Your task to perform on an android device: change your default location settings in chrome Image 0: 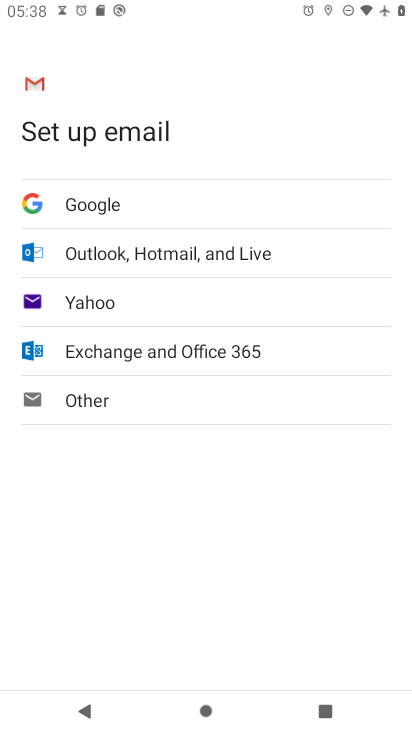
Step 0: press back button
Your task to perform on an android device: change your default location settings in chrome Image 1: 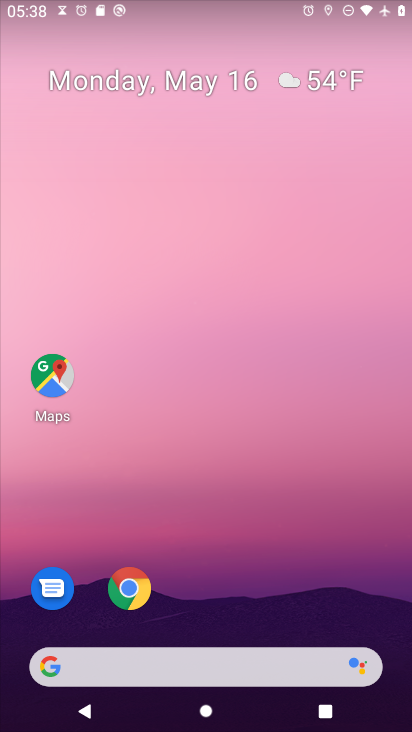
Step 1: drag from (248, 569) to (253, 15)
Your task to perform on an android device: change your default location settings in chrome Image 2: 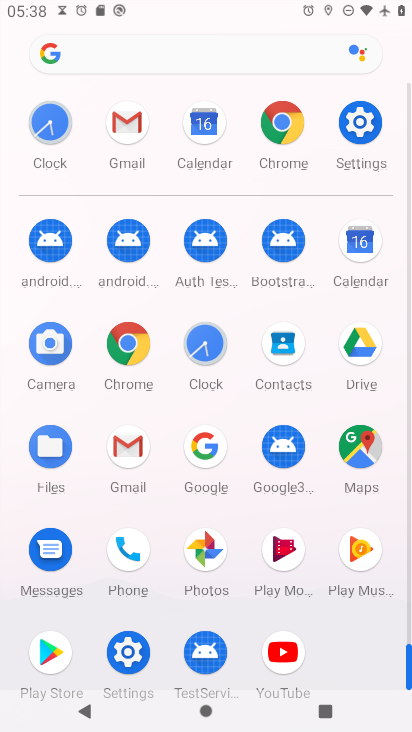
Step 2: click (126, 343)
Your task to perform on an android device: change your default location settings in chrome Image 3: 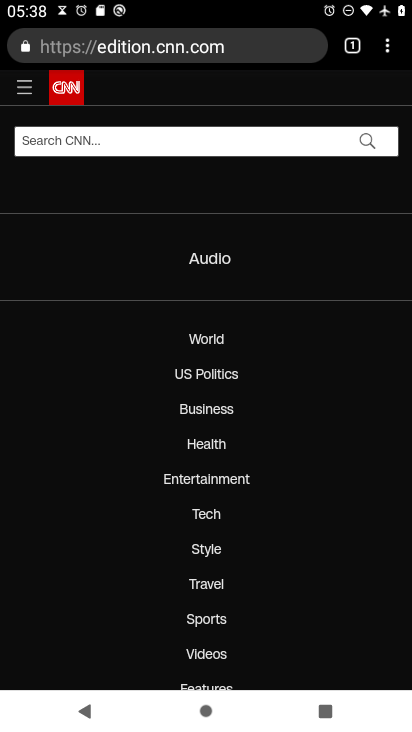
Step 3: drag from (386, 52) to (228, 547)
Your task to perform on an android device: change your default location settings in chrome Image 4: 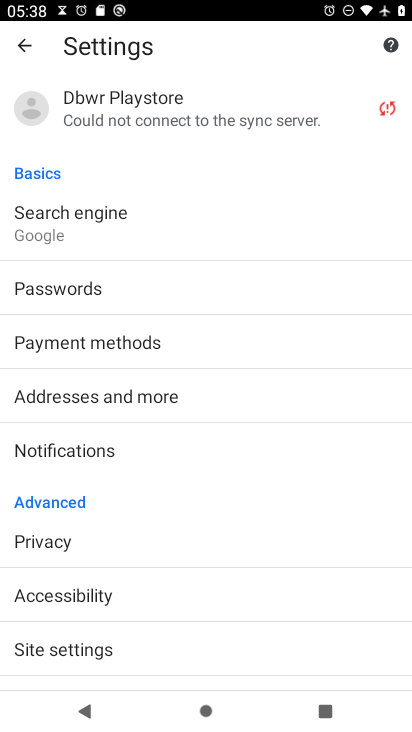
Step 4: drag from (238, 425) to (248, 111)
Your task to perform on an android device: change your default location settings in chrome Image 5: 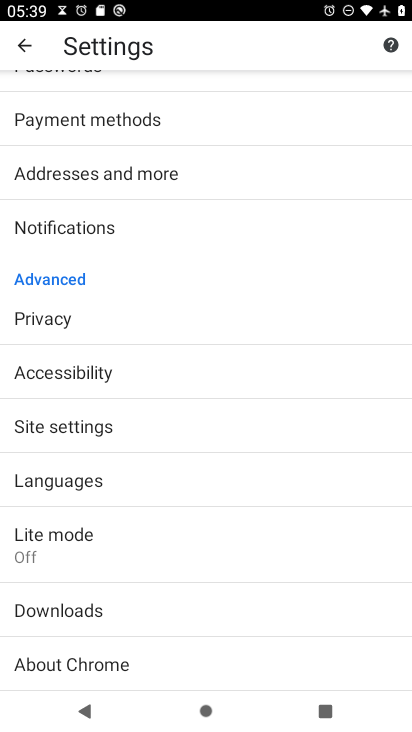
Step 5: drag from (145, 215) to (224, 133)
Your task to perform on an android device: change your default location settings in chrome Image 6: 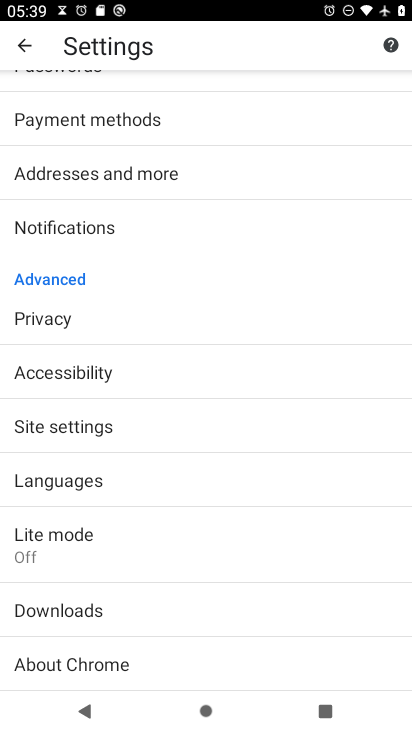
Step 6: click (79, 426)
Your task to perform on an android device: change your default location settings in chrome Image 7: 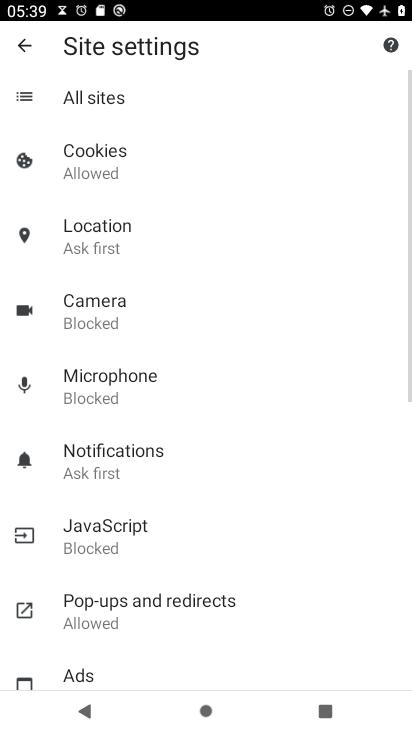
Step 7: click (182, 227)
Your task to perform on an android device: change your default location settings in chrome Image 8: 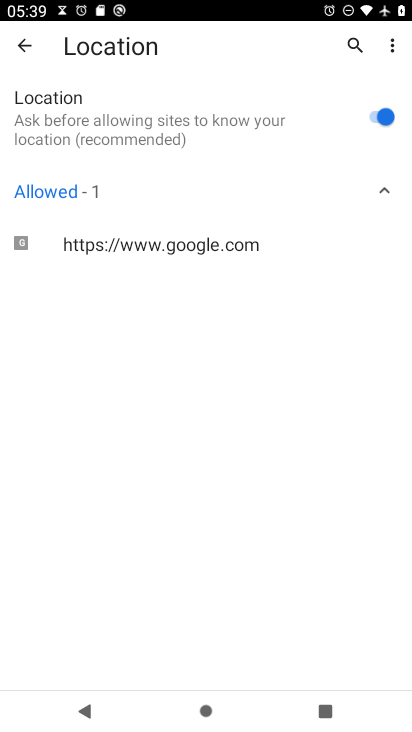
Step 8: click (371, 115)
Your task to perform on an android device: change your default location settings in chrome Image 9: 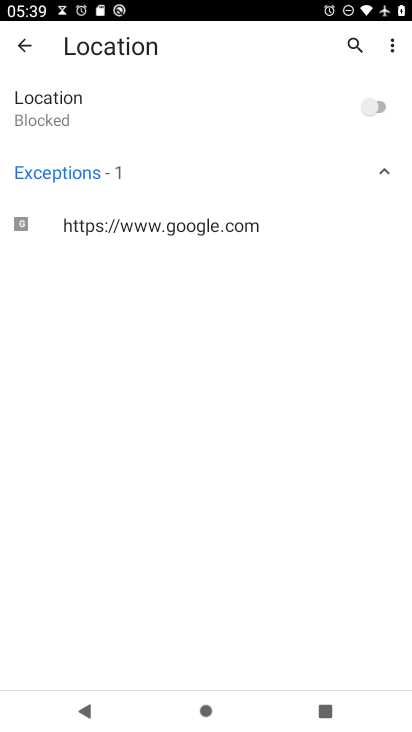
Step 9: task complete